Your task to perform on an android device: turn on the 12-hour format for clock Image 0: 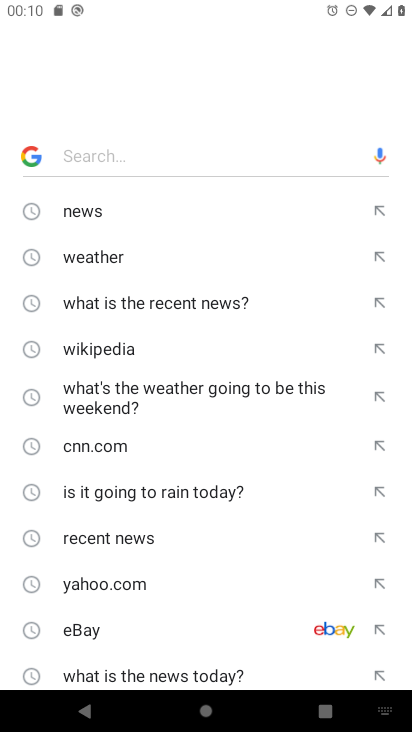
Step 0: press home button
Your task to perform on an android device: turn on the 12-hour format for clock Image 1: 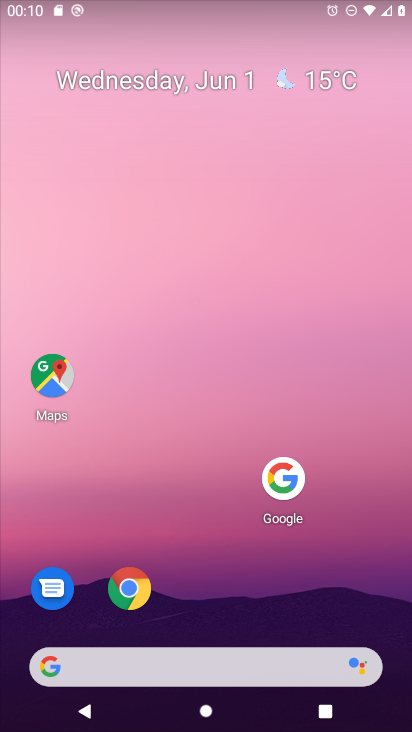
Step 1: drag from (163, 670) to (278, 240)
Your task to perform on an android device: turn on the 12-hour format for clock Image 2: 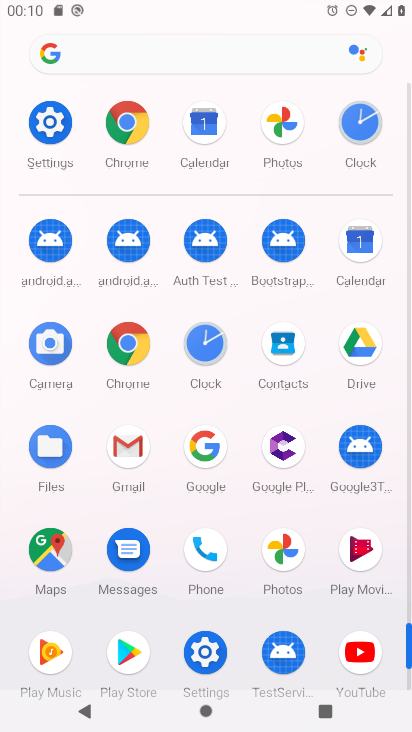
Step 2: click (354, 124)
Your task to perform on an android device: turn on the 12-hour format for clock Image 3: 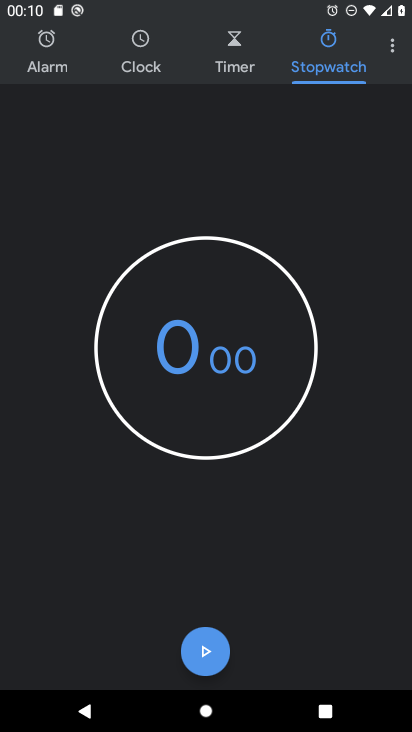
Step 3: click (386, 51)
Your task to perform on an android device: turn on the 12-hour format for clock Image 4: 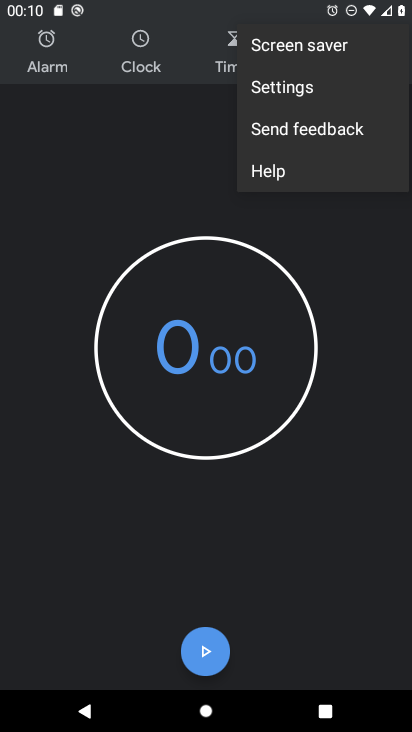
Step 4: click (290, 82)
Your task to perform on an android device: turn on the 12-hour format for clock Image 5: 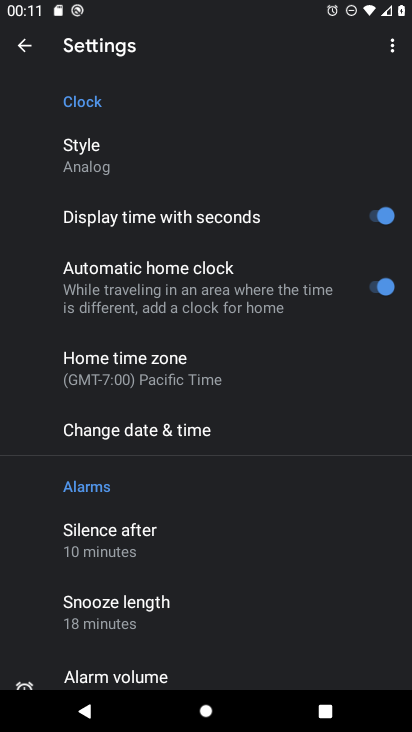
Step 5: click (175, 431)
Your task to perform on an android device: turn on the 12-hour format for clock Image 6: 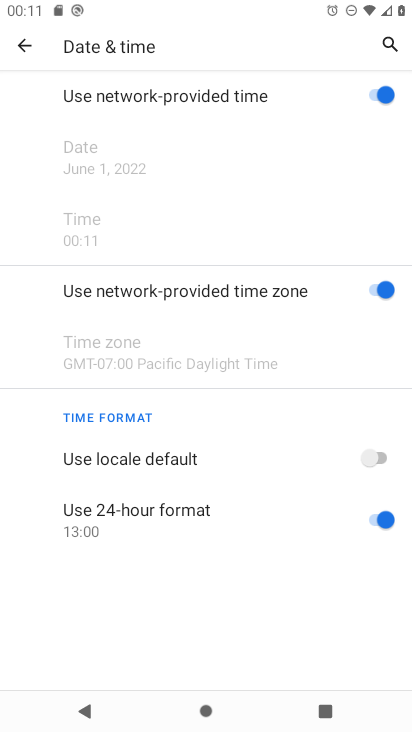
Step 6: click (378, 454)
Your task to perform on an android device: turn on the 12-hour format for clock Image 7: 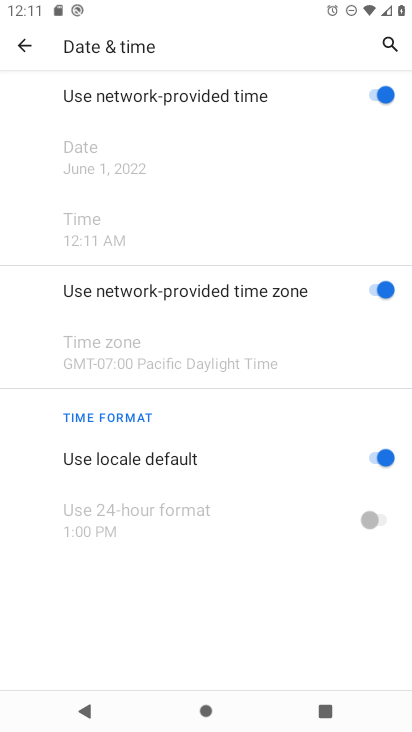
Step 7: task complete